Your task to perform on an android device: Go to eBay Image 0: 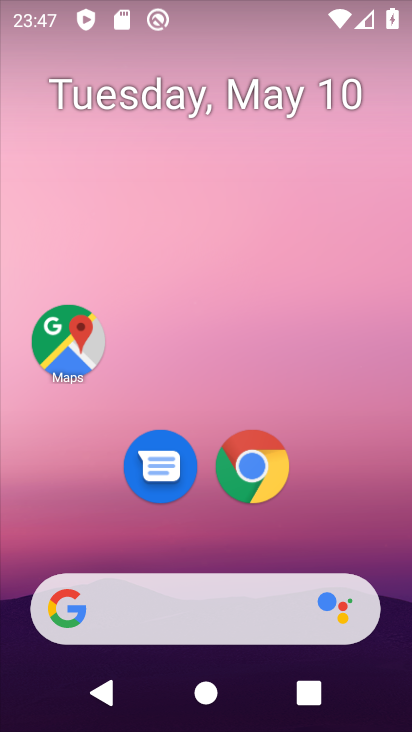
Step 0: click (249, 476)
Your task to perform on an android device: Go to eBay Image 1: 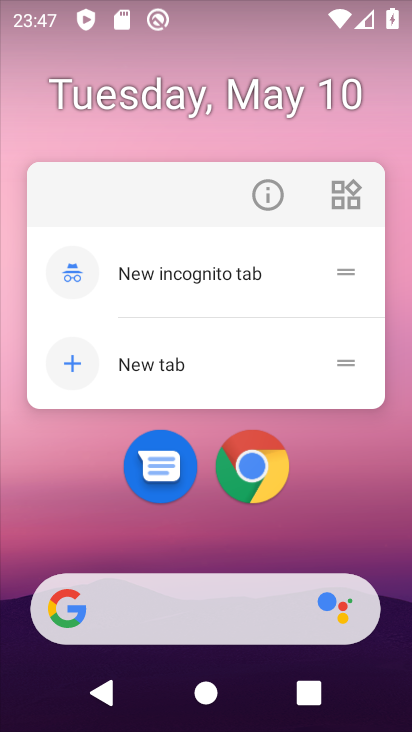
Step 1: click (261, 462)
Your task to perform on an android device: Go to eBay Image 2: 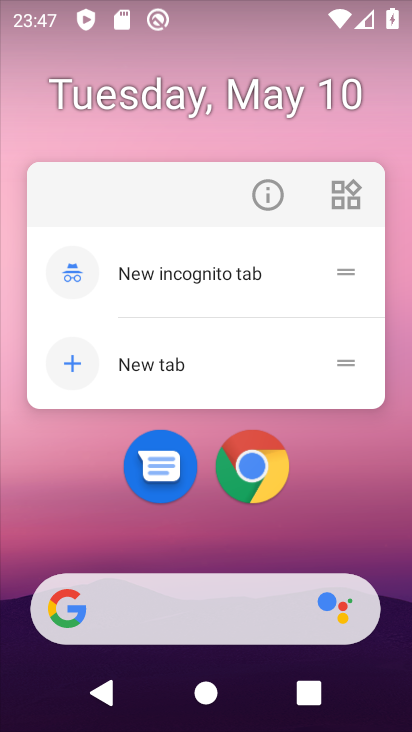
Step 2: click (282, 471)
Your task to perform on an android device: Go to eBay Image 3: 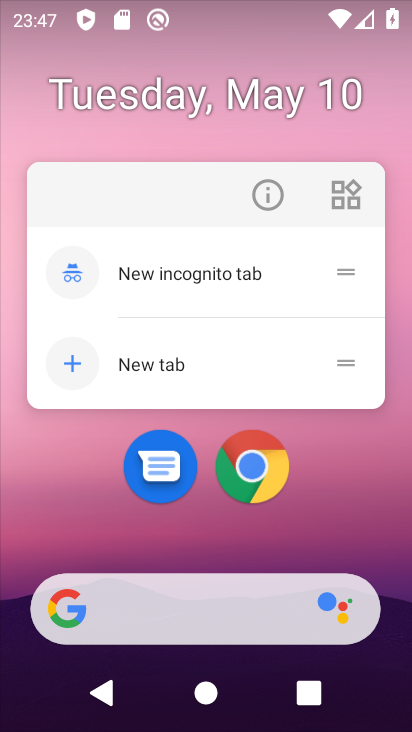
Step 3: click (275, 485)
Your task to perform on an android device: Go to eBay Image 4: 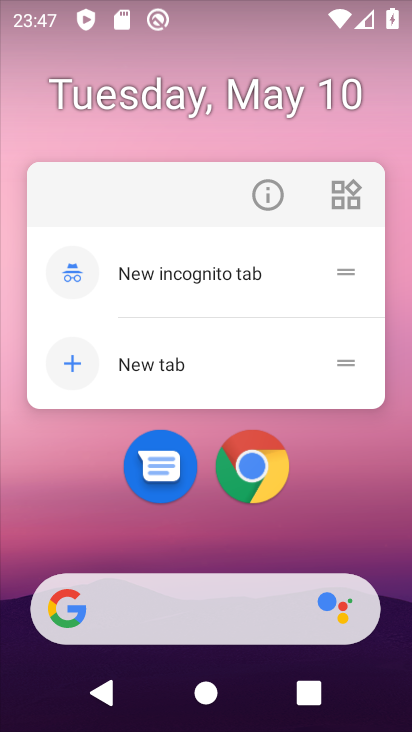
Step 4: click (248, 452)
Your task to perform on an android device: Go to eBay Image 5: 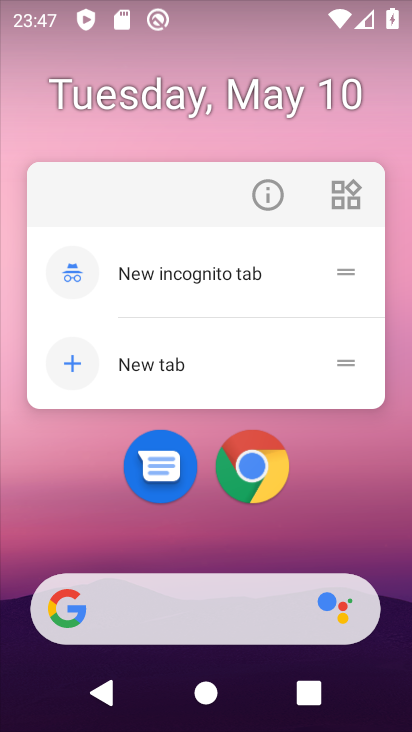
Step 5: click (243, 479)
Your task to perform on an android device: Go to eBay Image 6: 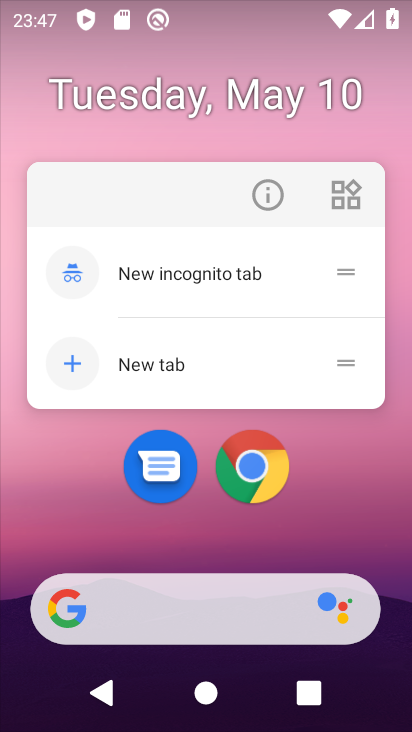
Step 6: click (262, 480)
Your task to perform on an android device: Go to eBay Image 7: 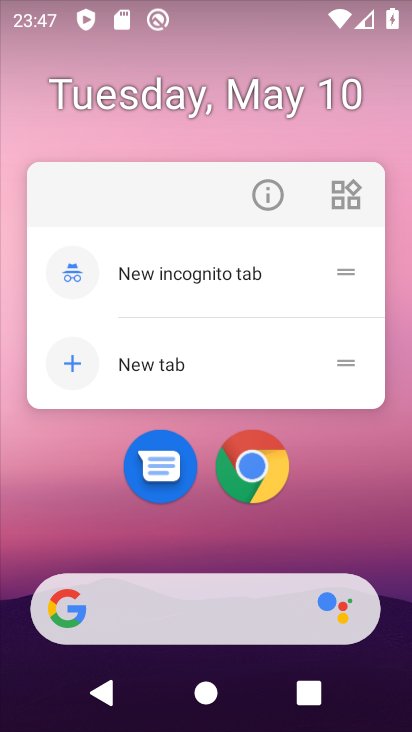
Step 7: click (267, 477)
Your task to perform on an android device: Go to eBay Image 8: 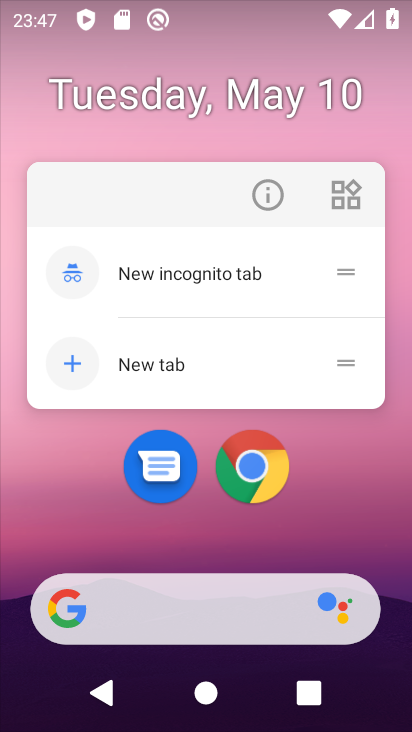
Step 8: click (261, 473)
Your task to perform on an android device: Go to eBay Image 9: 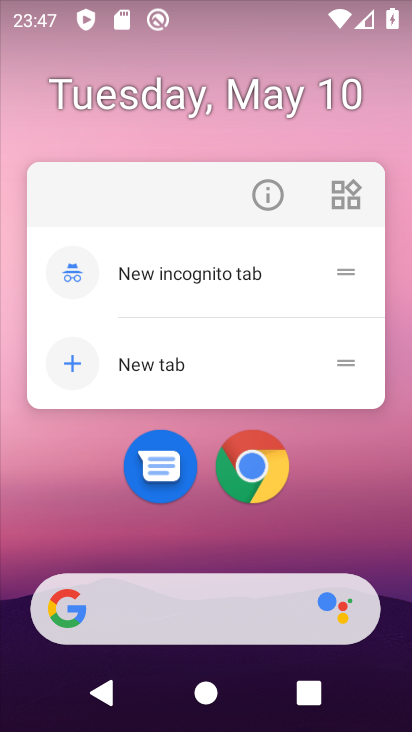
Step 9: click (261, 473)
Your task to perform on an android device: Go to eBay Image 10: 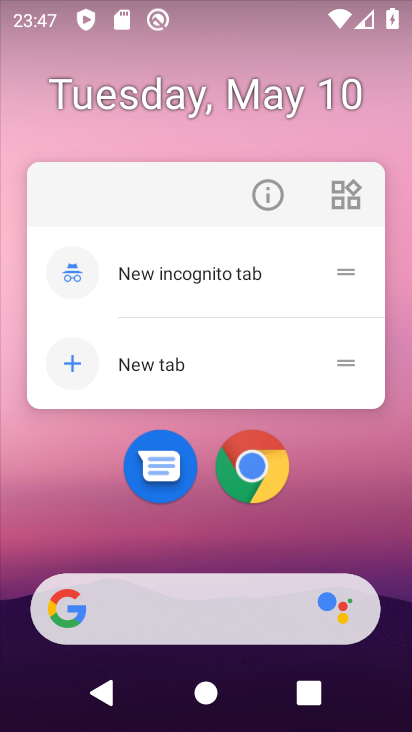
Step 10: drag from (248, 543) to (343, 41)
Your task to perform on an android device: Go to eBay Image 11: 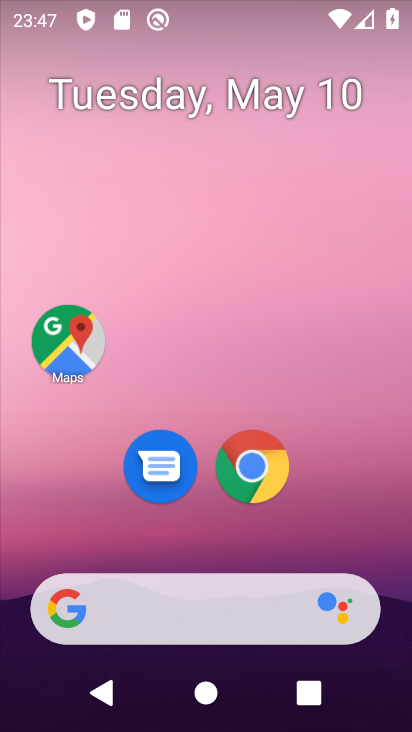
Step 11: click (266, 496)
Your task to perform on an android device: Go to eBay Image 12: 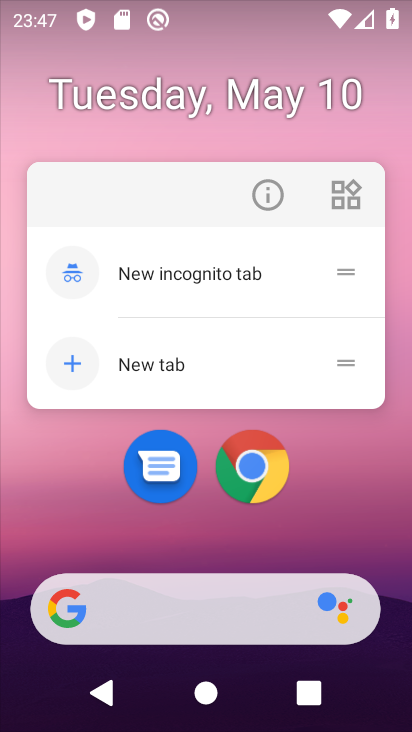
Step 12: click (250, 458)
Your task to perform on an android device: Go to eBay Image 13: 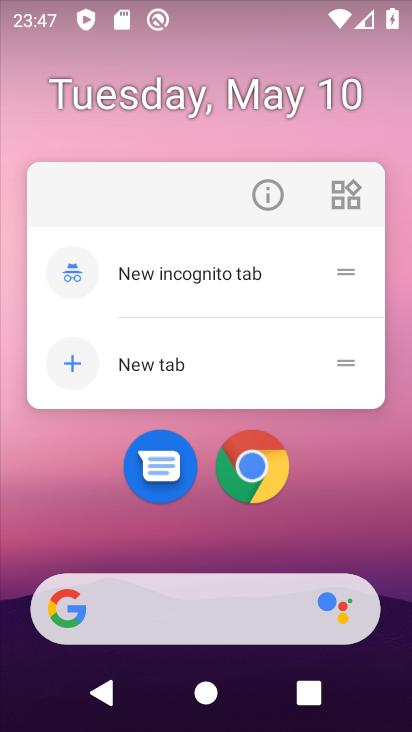
Step 13: drag from (264, 567) to (410, 0)
Your task to perform on an android device: Go to eBay Image 14: 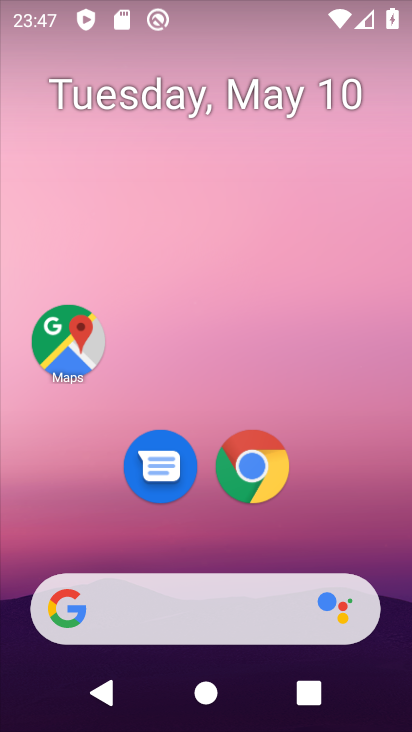
Step 14: drag from (211, 577) to (352, 7)
Your task to perform on an android device: Go to eBay Image 15: 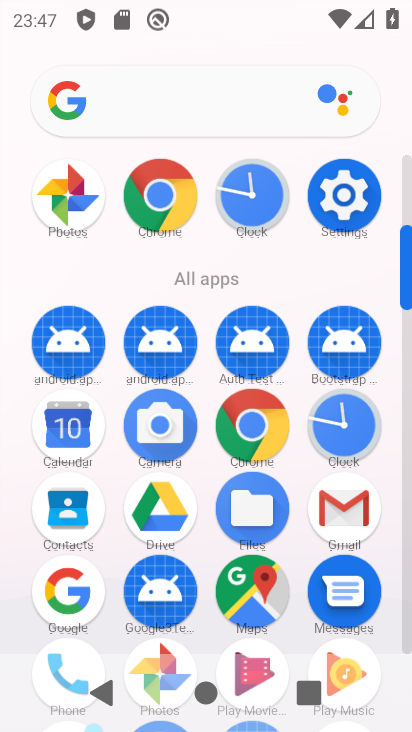
Step 15: click (242, 435)
Your task to perform on an android device: Go to eBay Image 16: 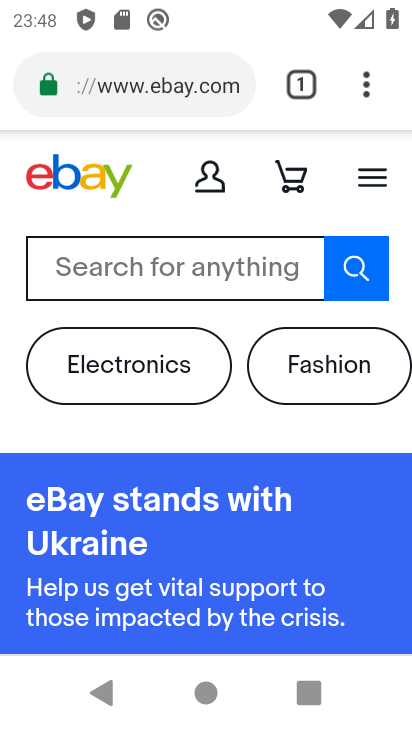
Step 16: task complete